Your task to perform on an android device: change the clock display to show seconds Image 0: 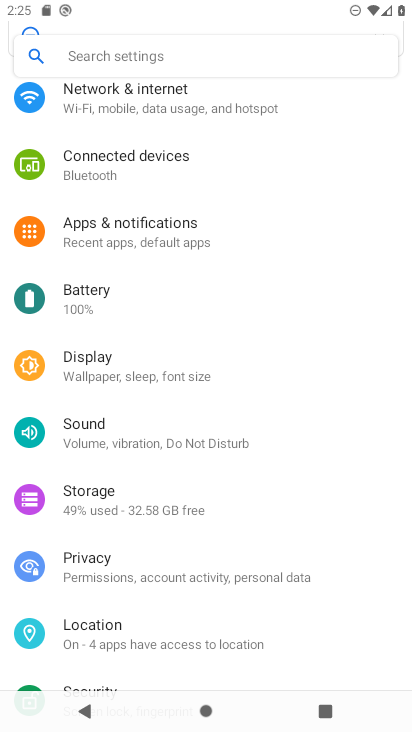
Step 0: press home button
Your task to perform on an android device: change the clock display to show seconds Image 1: 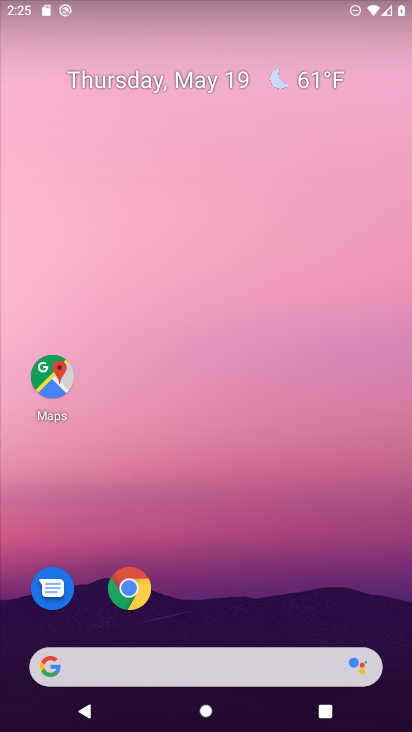
Step 1: drag from (298, 643) to (410, 29)
Your task to perform on an android device: change the clock display to show seconds Image 2: 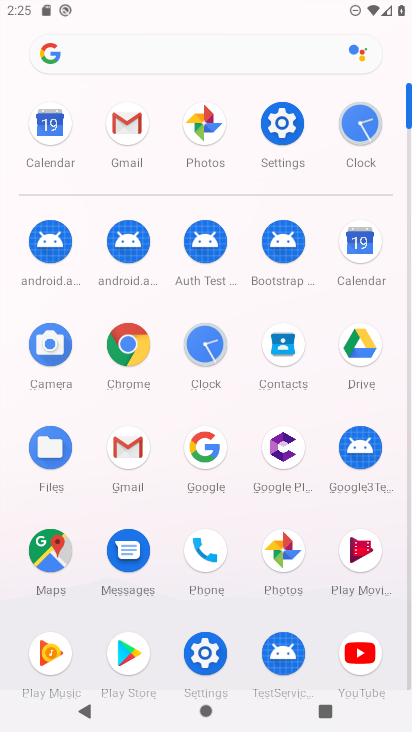
Step 2: click (364, 142)
Your task to perform on an android device: change the clock display to show seconds Image 3: 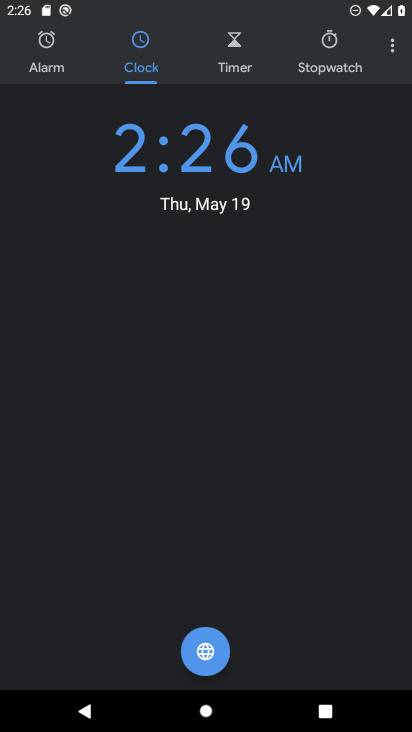
Step 3: click (395, 48)
Your task to perform on an android device: change the clock display to show seconds Image 4: 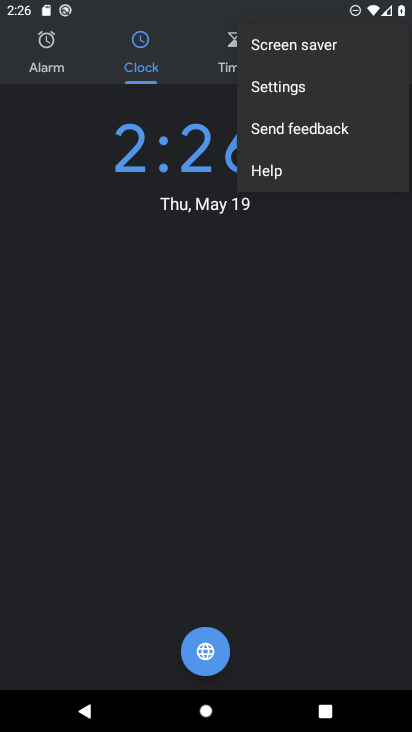
Step 4: click (294, 92)
Your task to perform on an android device: change the clock display to show seconds Image 5: 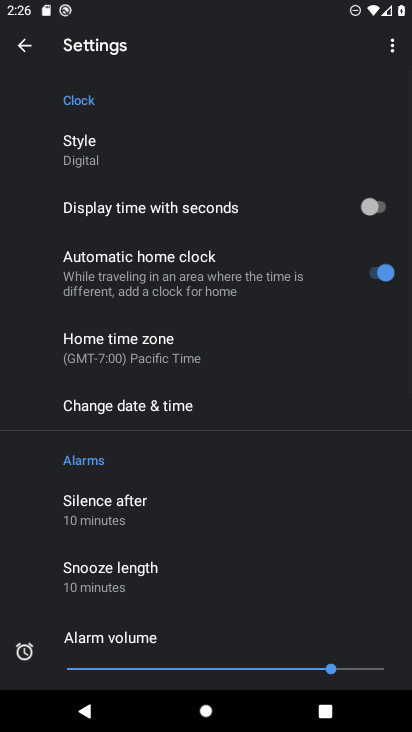
Step 5: click (369, 215)
Your task to perform on an android device: change the clock display to show seconds Image 6: 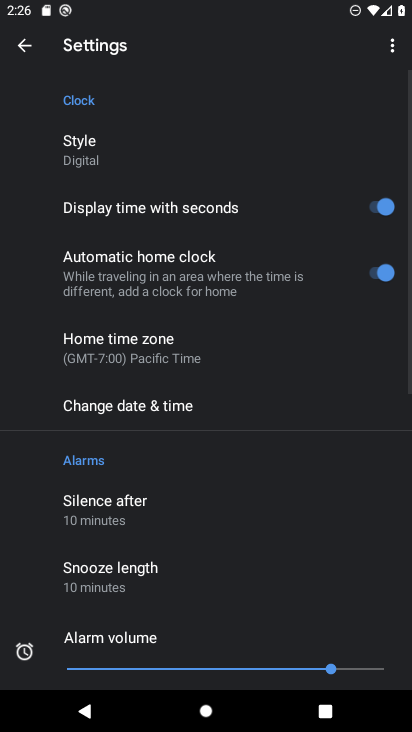
Step 6: task complete